Your task to perform on an android device: Is it going to rain today? Image 0: 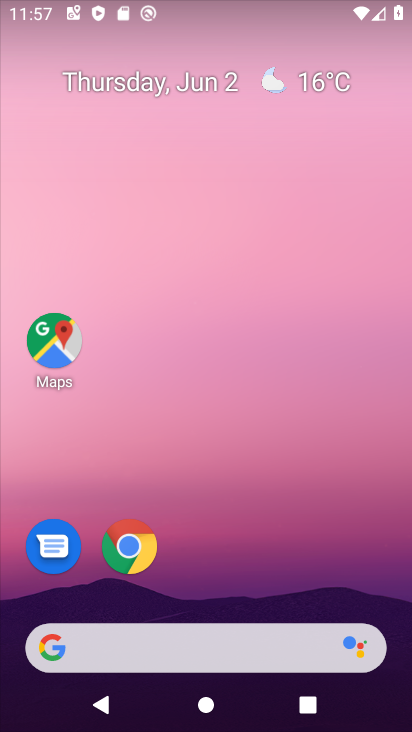
Step 0: click (223, 628)
Your task to perform on an android device: Is it going to rain today? Image 1: 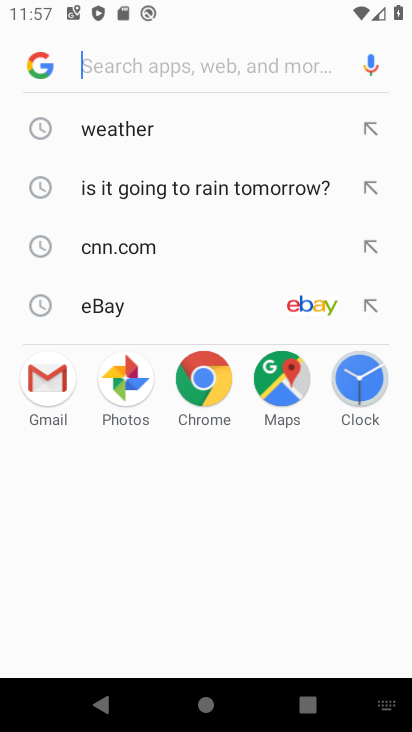
Step 1: click (124, 122)
Your task to perform on an android device: Is it going to rain today? Image 2: 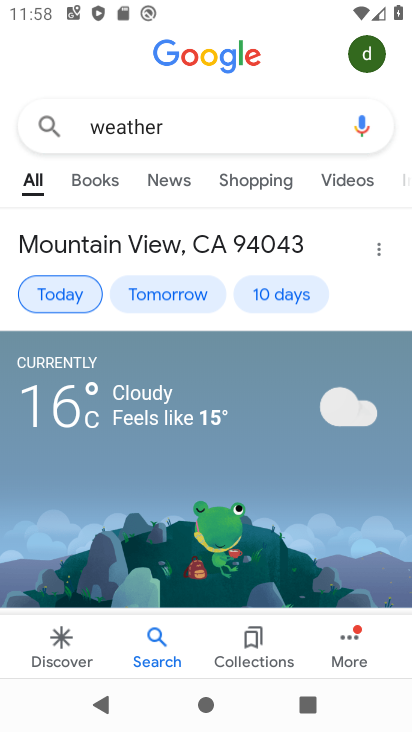
Step 2: task complete